Your task to perform on an android device: turn off improve location accuracy Image 0: 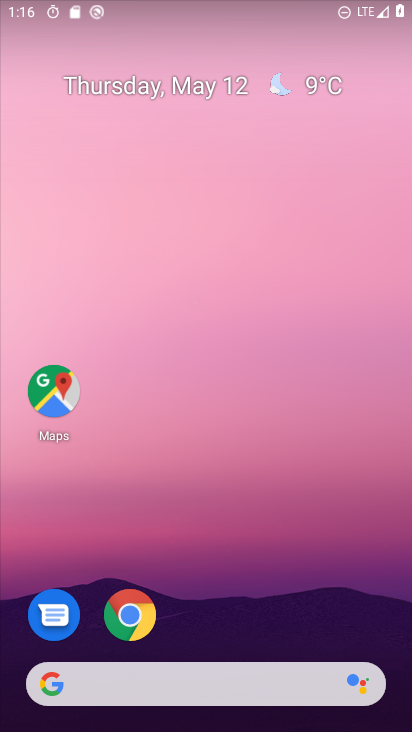
Step 0: drag from (311, 592) to (237, 144)
Your task to perform on an android device: turn off improve location accuracy Image 1: 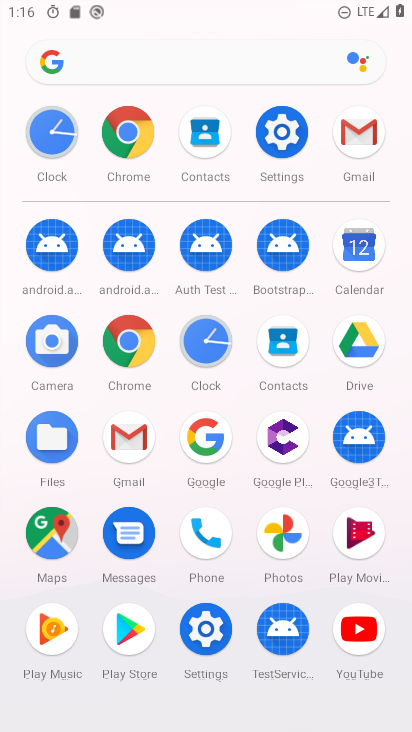
Step 1: click (203, 621)
Your task to perform on an android device: turn off improve location accuracy Image 2: 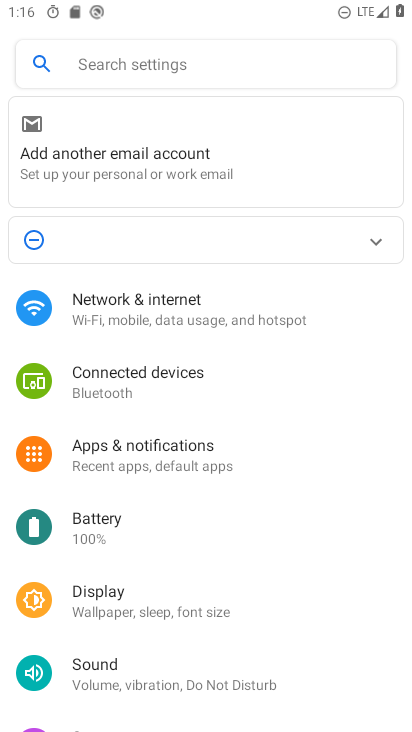
Step 2: drag from (243, 472) to (297, 136)
Your task to perform on an android device: turn off improve location accuracy Image 3: 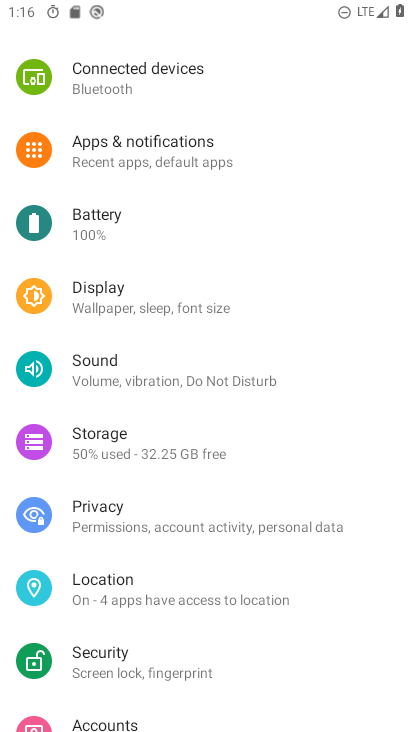
Step 3: click (177, 585)
Your task to perform on an android device: turn off improve location accuracy Image 4: 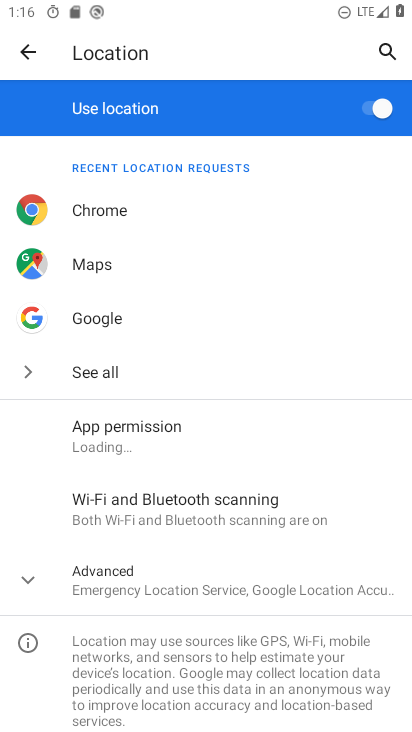
Step 4: click (201, 585)
Your task to perform on an android device: turn off improve location accuracy Image 5: 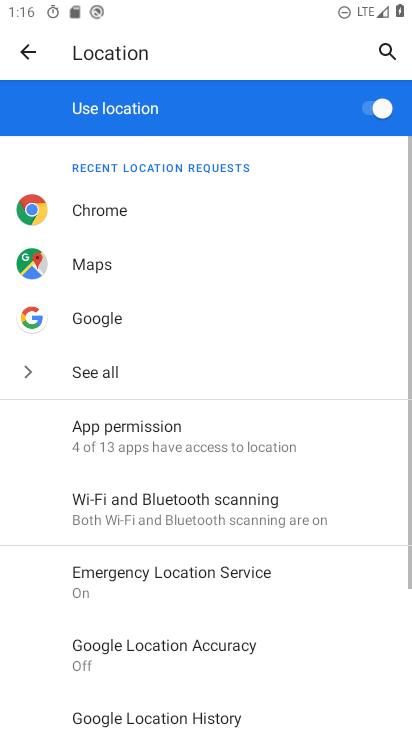
Step 5: drag from (292, 354) to (302, 185)
Your task to perform on an android device: turn off improve location accuracy Image 6: 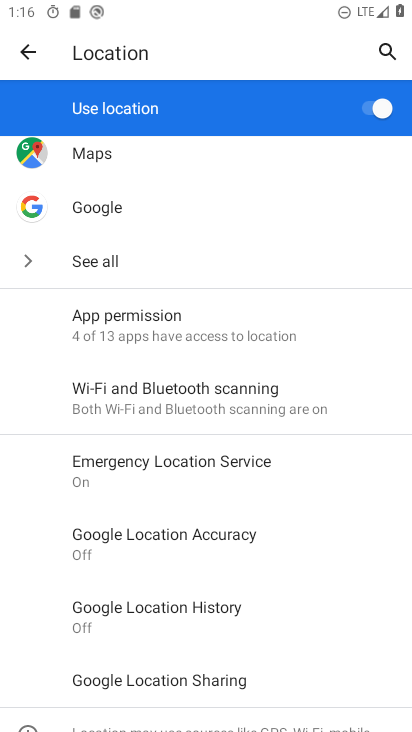
Step 6: click (228, 543)
Your task to perform on an android device: turn off improve location accuracy Image 7: 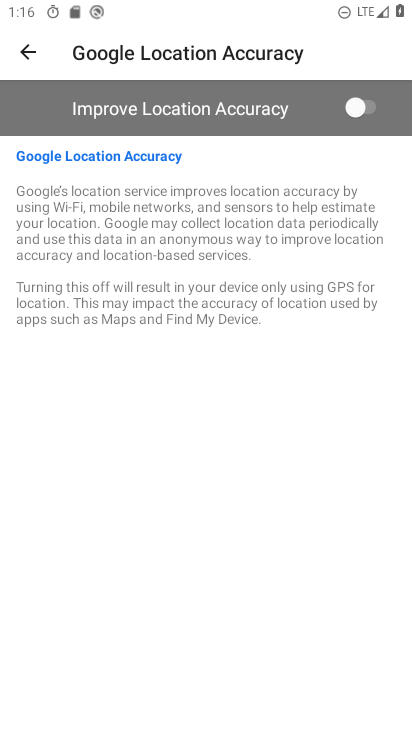
Step 7: task complete